Your task to perform on an android device: Open CNN.com Image 0: 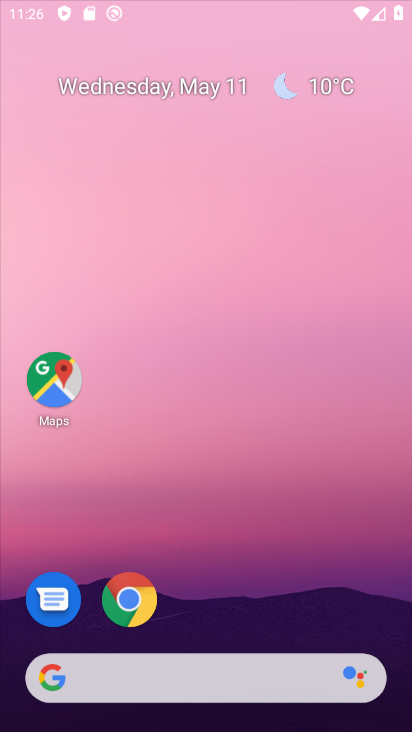
Step 0: click (248, 1)
Your task to perform on an android device: Open CNN.com Image 1: 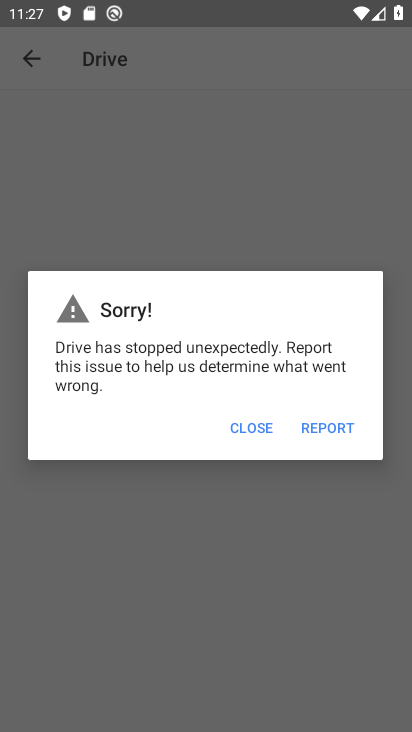
Step 1: press home button
Your task to perform on an android device: Open CNN.com Image 2: 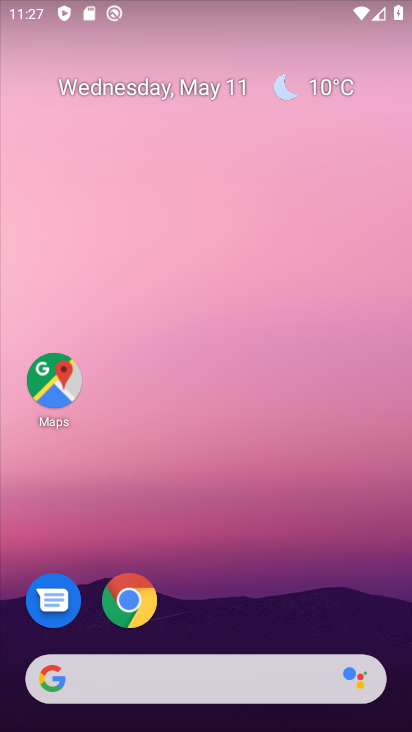
Step 2: click (127, 605)
Your task to perform on an android device: Open CNN.com Image 3: 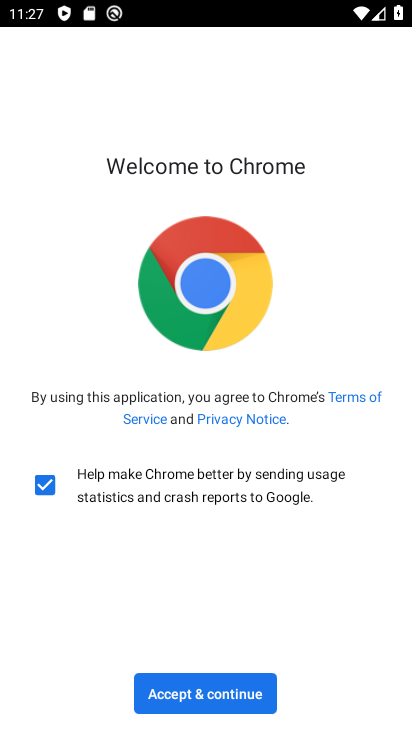
Step 3: click (169, 696)
Your task to perform on an android device: Open CNN.com Image 4: 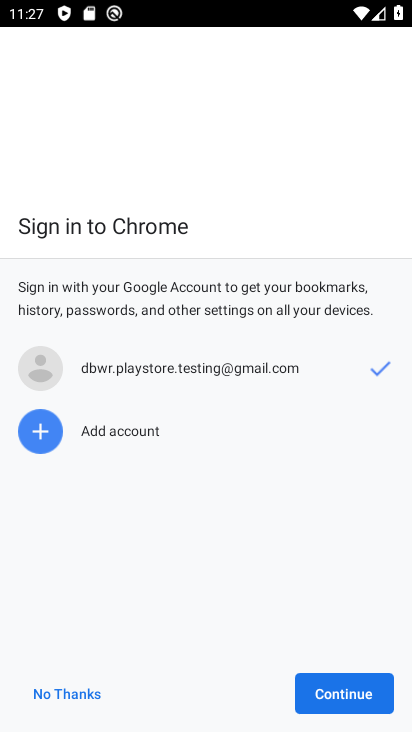
Step 4: click (303, 698)
Your task to perform on an android device: Open CNN.com Image 5: 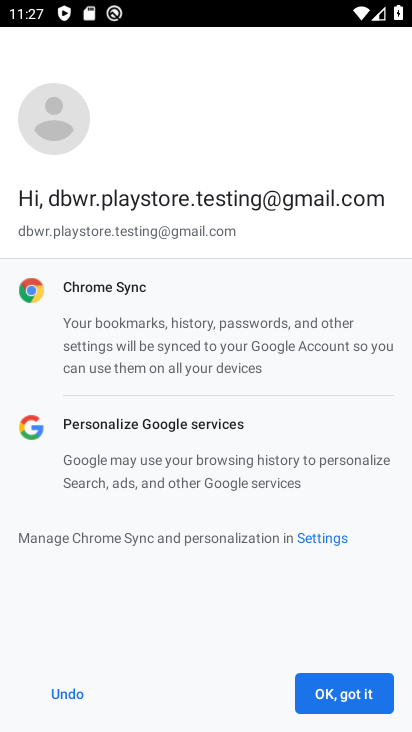
Step 5: click (303, 698)
Your task to perform on an android device: Open CNN.com Image 6: 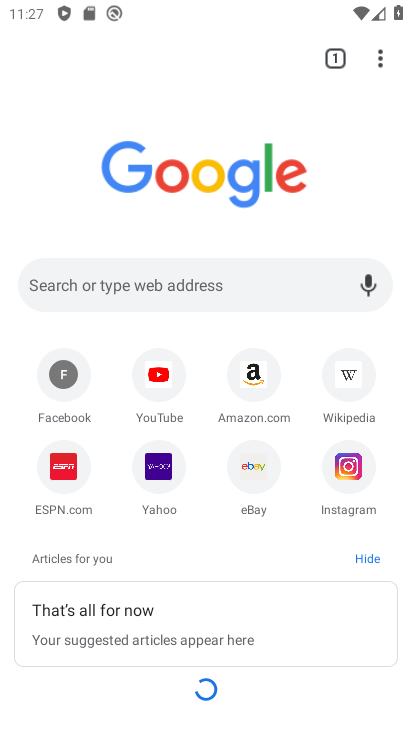
Step 6: click (191, 280)
Your task to perform on an android device: Open CNN.com Image 7: 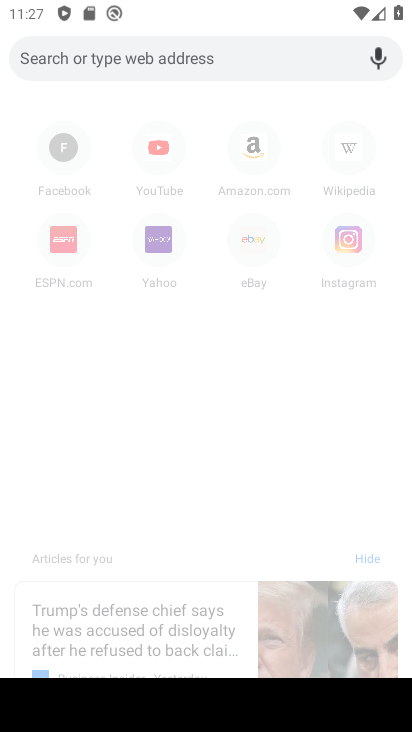
Step 7: type "CNN.com"
Your task to perform on an android device: Open CNN.com Image 8: 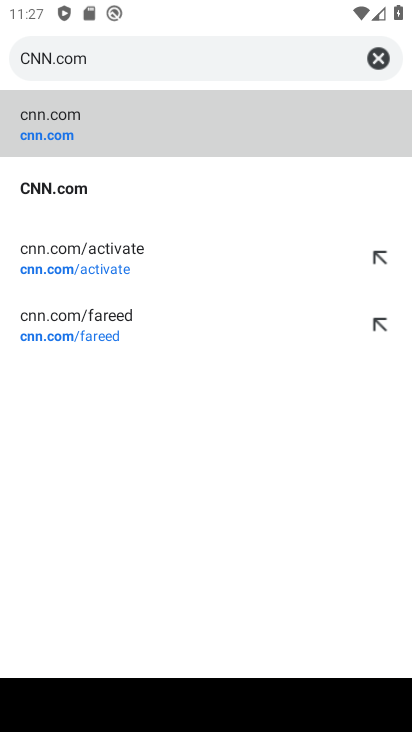
Step 8: click (75, 121)
Your task to perform on an android device: Open CNN.com Image 9: 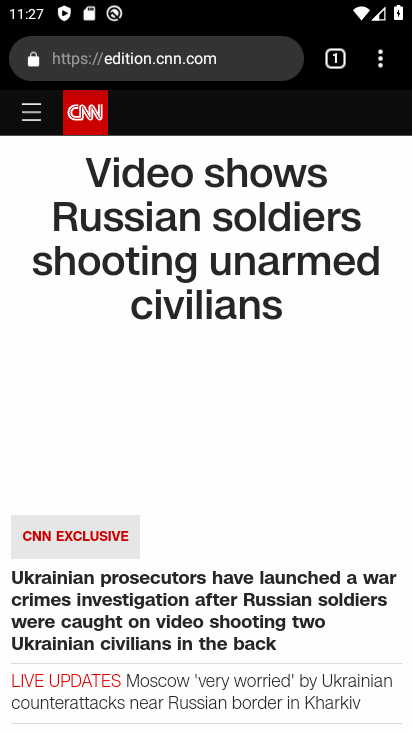
Step 9: task complete